Your task to perform on an android device: Open the stopwatch Image 0: 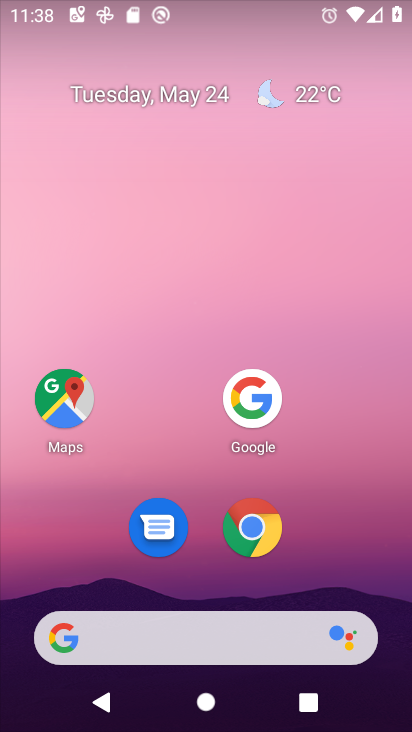
Step 0: drag from (202, 639) to (341, 209)
Your task to perform on an android device: Open the stopwatch Image 1: 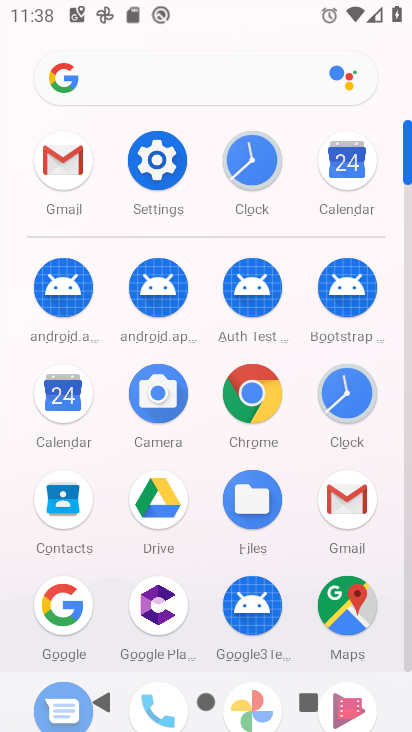
Step 1: click (348, 401)
Your task to perform on an android device: Open the stopwatch Image 2: 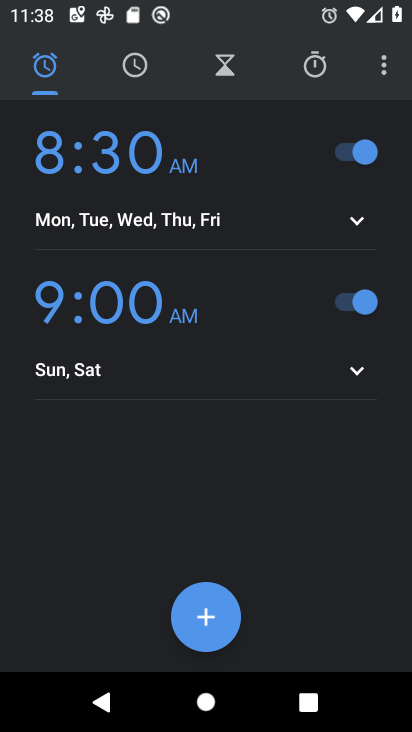
Step 2: click (317, 69)
Your task to perform on an android device: Open the stopwatch Image 3: 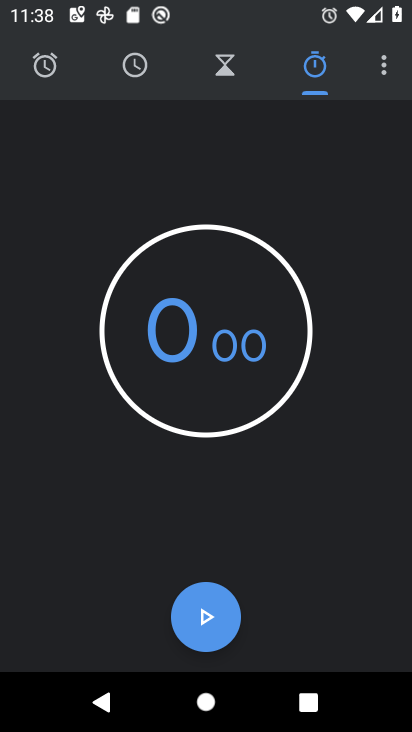
Step 3: task complete